Your task to perform on an android device: visit the assistant section in the google photos Image 0: 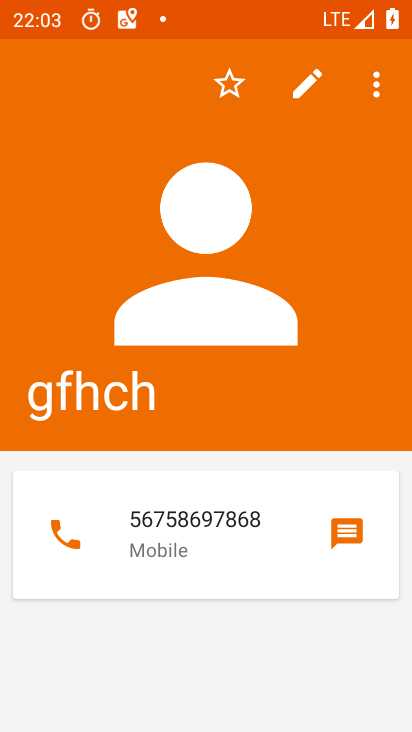
Step 0: press home button
Your task to perform on an android device: visit the assistant section in the google photos Image 1: 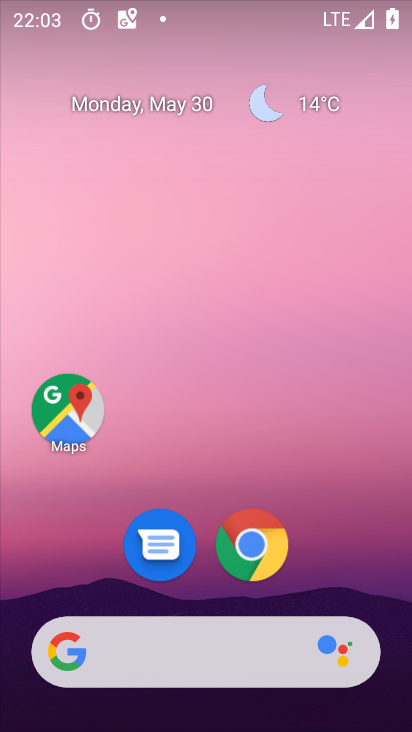
Step 1: drag from (327, 550) to (293, 387)
Your task to perform on an android device: visit the assistant section in the google photos Image 2: 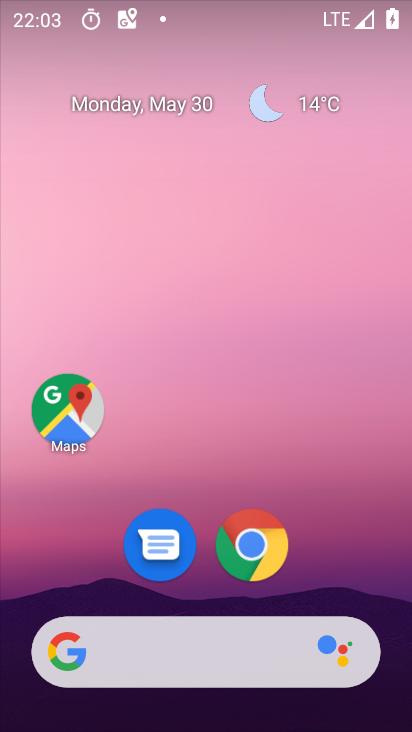
Step 2: drag from (317, 550) to (313, 217)
Your task to perform on an android device: visit the assistant section in the google photos Image 3: 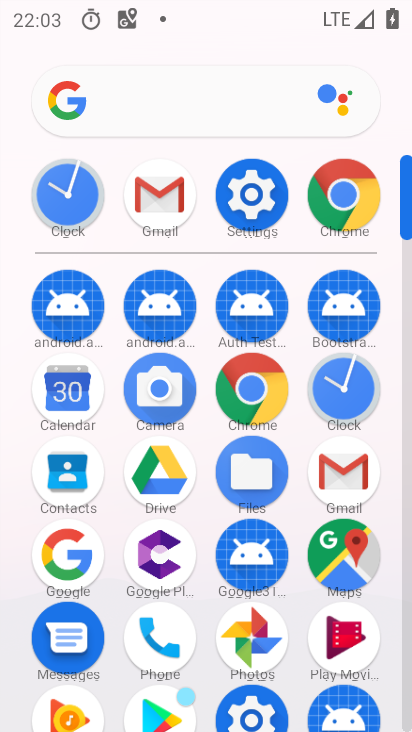
Step 3: click (265, 623)
Your task to perform on an android device: visit the assistant section in the google photos Image 4: 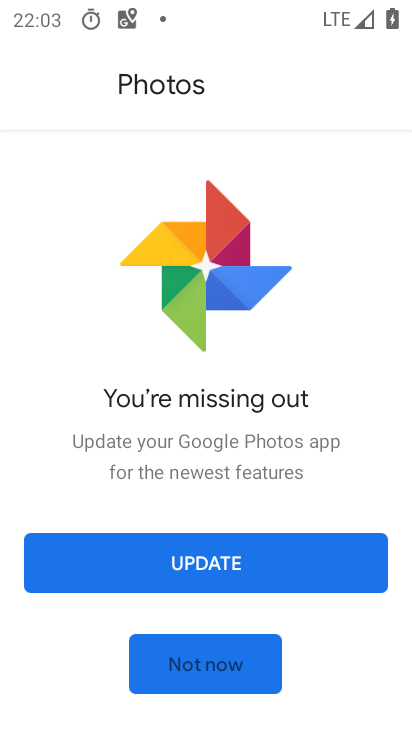
Step 4: click (238, 567)
Your task to perform on an android device: visit the assistant section in the google photos Image 5: 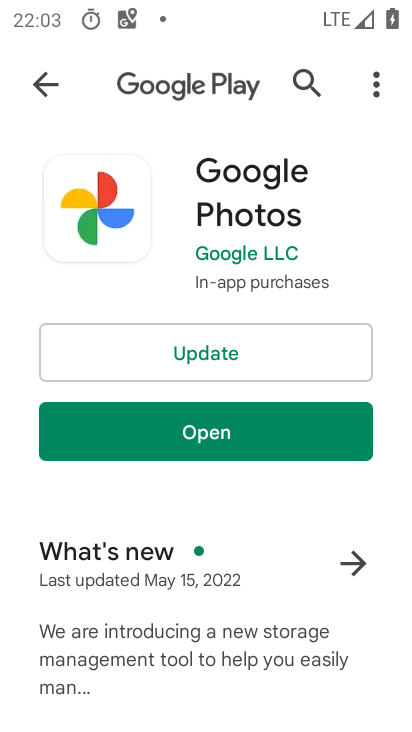
Step 5: click (226, 365)
Your task to perform on an android device: visit the assistant section in the google photos Image 6: 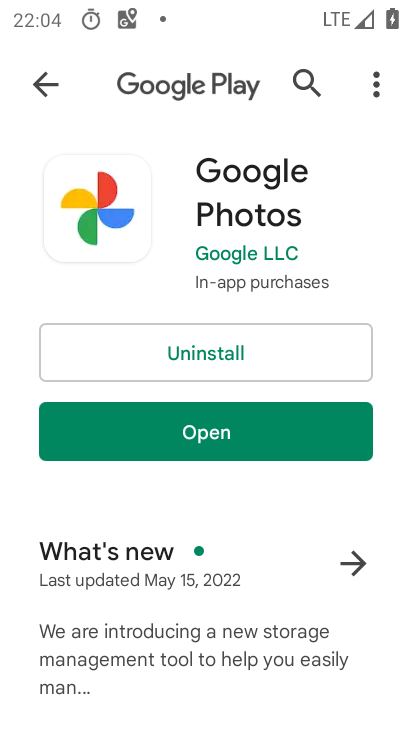
Step 6: click (246, 440)
Your task to perform on an android device: visit the assistant section in the google photos Image 7: 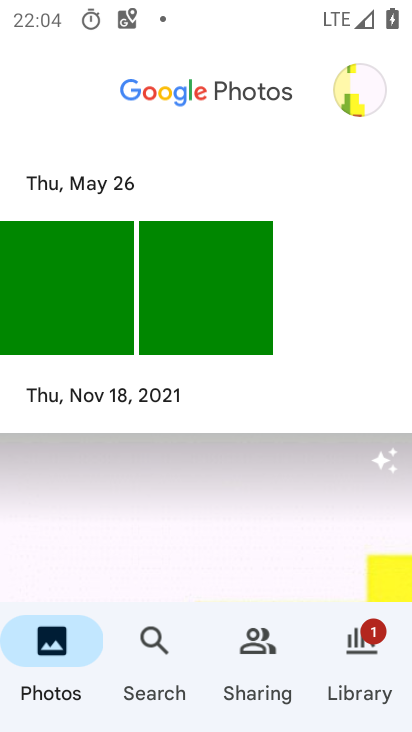
Step 7: click (153, 637)
Your task to perform on an android device: visit the assistant section in the google photos Image 8: 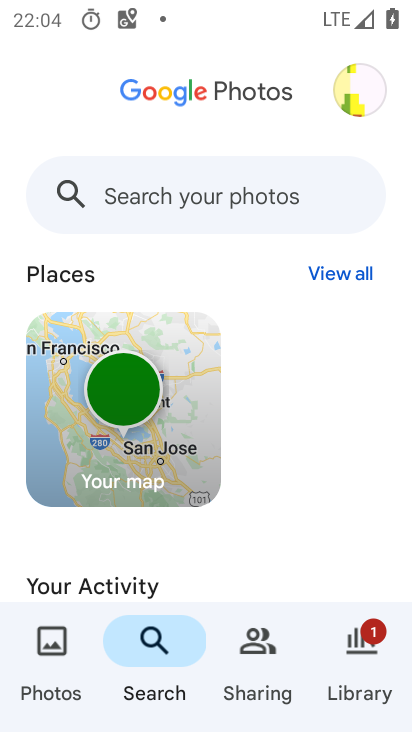
Step 8: type "assistant section"
Your task to perform on an android device: visit the assistant section in the google photos Image 9: 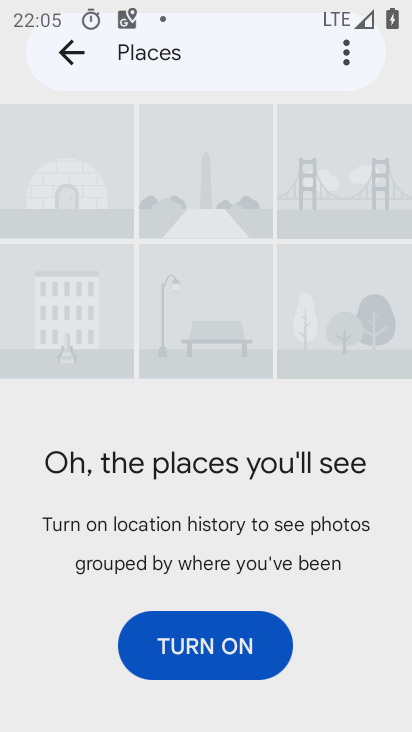
Step 9: task complete